Your task to perform on an android device: move a message to another label in the gmail app Image 0: 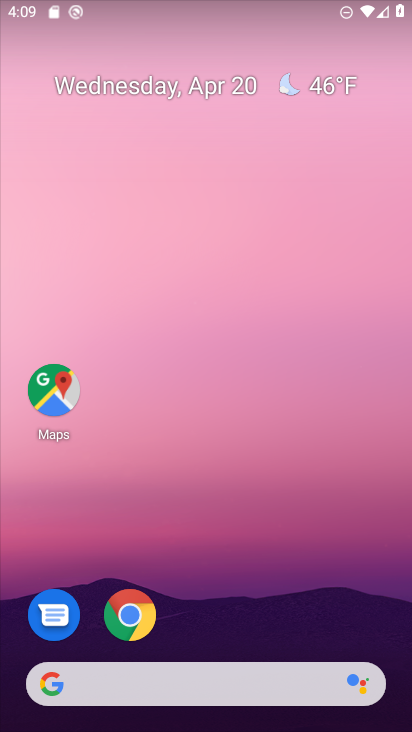
Step 0: click (58, 393)
Your task to perform on an android device: move a message to another label in the gmail app Image 1: 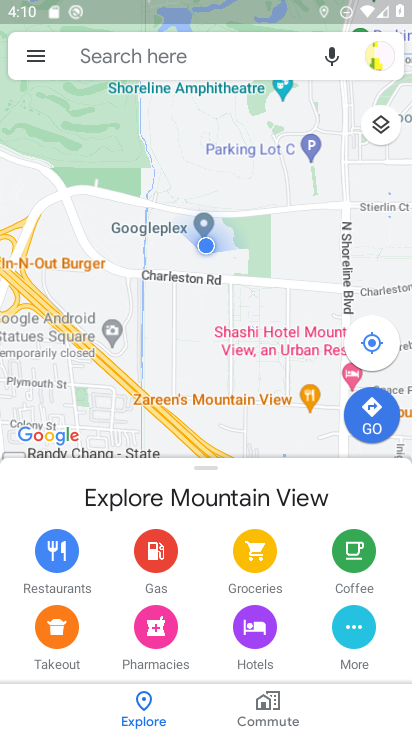
Step 1: press back button
Your task to perform on an android device: move a message to another label in the gmail app Image 2: 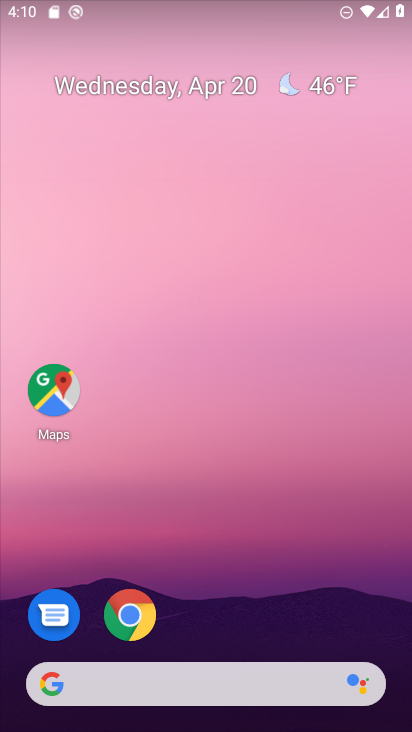
Step 2: drag from (190, 607) to (340, 37)
Your task to perform on an android device: move a message to another label in the gmail app Image 3: 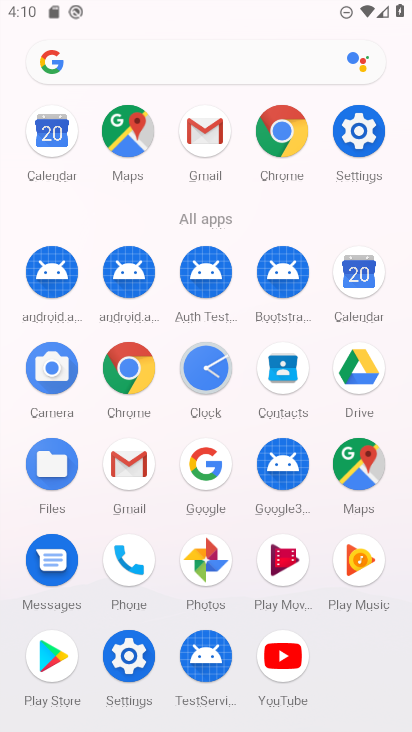
Step 3: click (210, 134)
Your task to perform on an android device: move a message to another label in the gmail app Image 4: 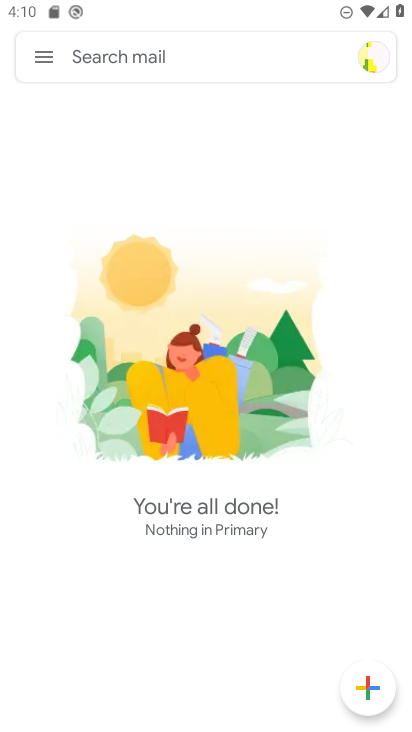
Step 4: click (39, 52)
Your task to perform on an android device: move a message to another label in the gmail app Image 5: 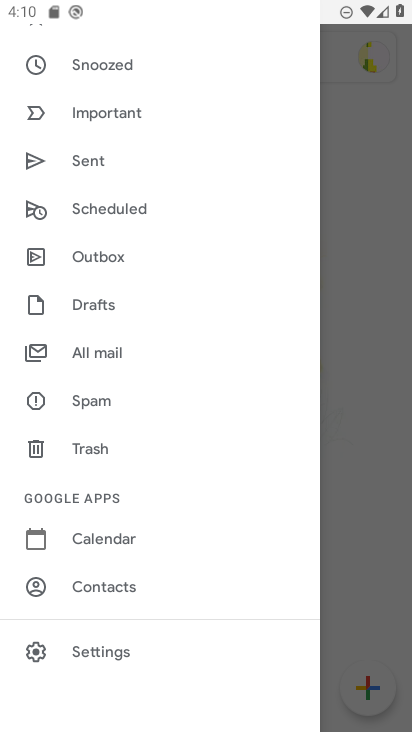
Step 5: click (127, 358)
Your task to perform on an android device: move a message to another label in the gmail app Image 6: 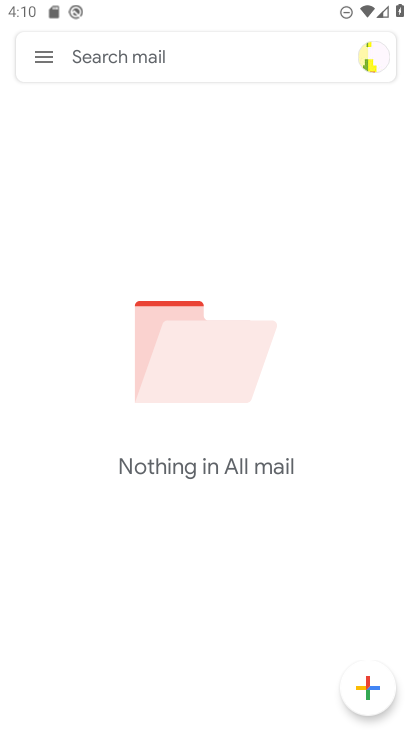
Step 6: task complete